Your task to perform on an android device: toggle improve location accuracy Image 0: 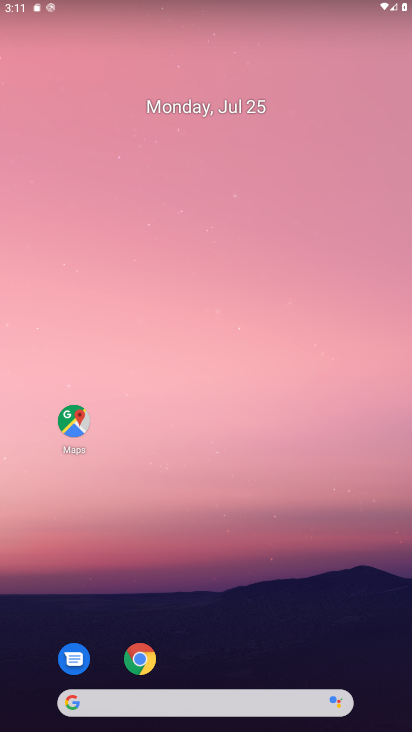
Step 0: drag from (223, 52) to (259, 148)
Your task to perform on an android device: toggle improve location accuracy Image 1: 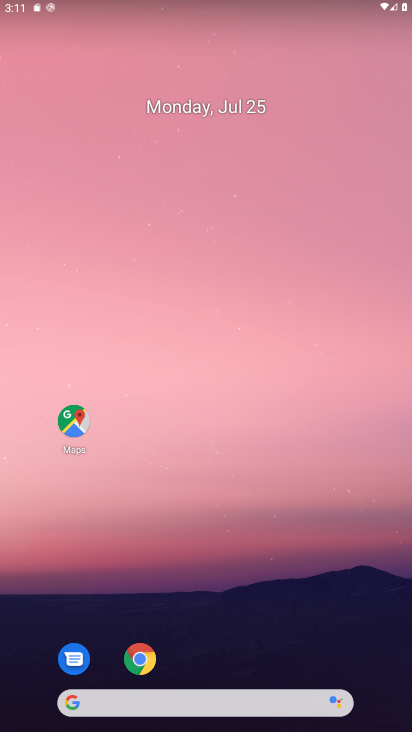
Step 1: drag from (180, 654) to (250, 24)
Your task to perform on an android device: toggle improve location accuracy Image 2: 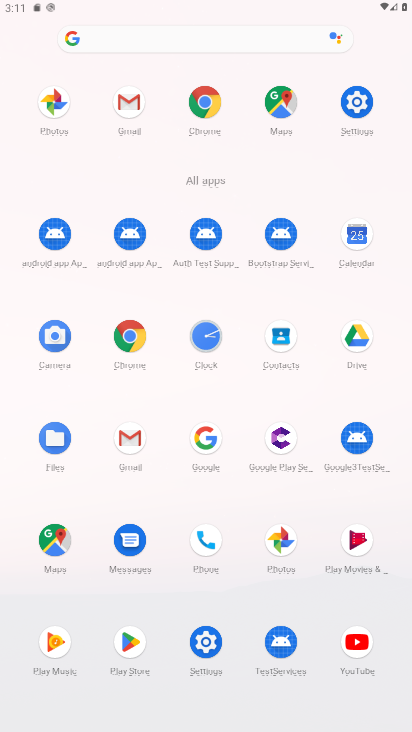
Step 2: click (357, 107)
Your task to perform on an android device: toggle improve location accuracy Image 3: 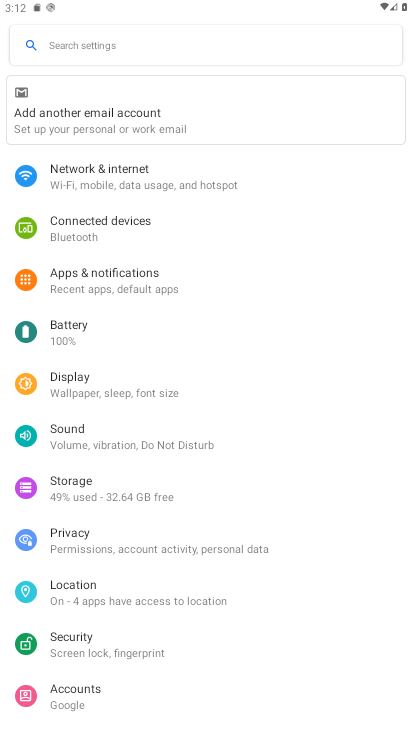
Step 3: click (73, 185)
Your task to perform on an android device: toggle improve location accuracy Image 4: 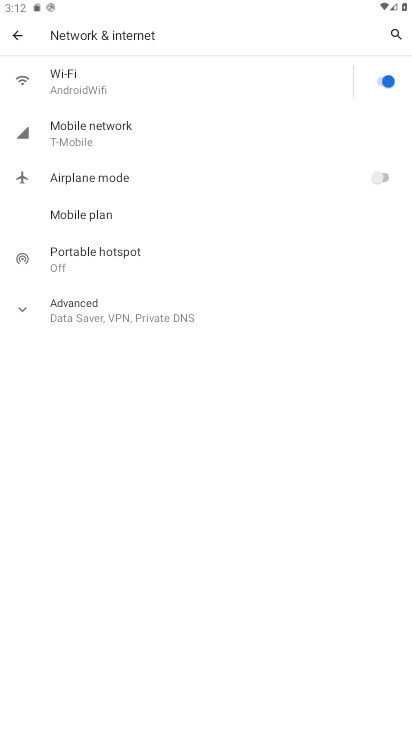
Step 4: press back button
Your task to perform on an android device: toggle improve location accuracy Image 5: 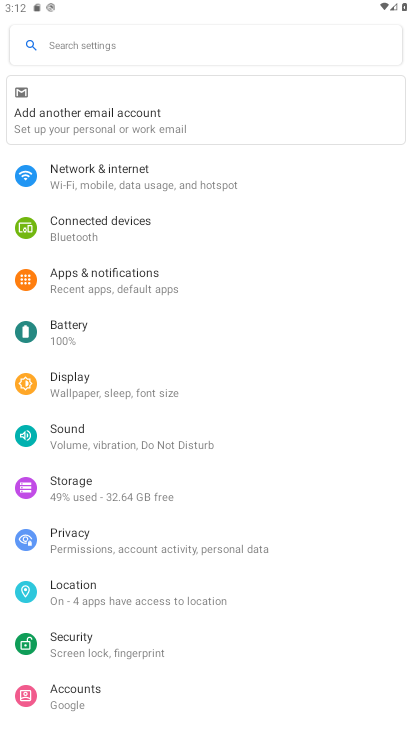
Step 5: click (99, 597)
Your task to perform on an android device: toggle improve location accuracy Image 6: 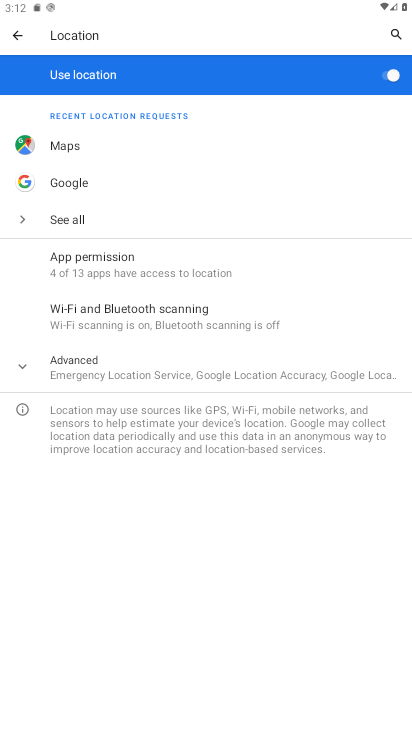
Step 6: click (69, 367)
Your task to perform on an android device: toggle improve location accuracy Image 7: 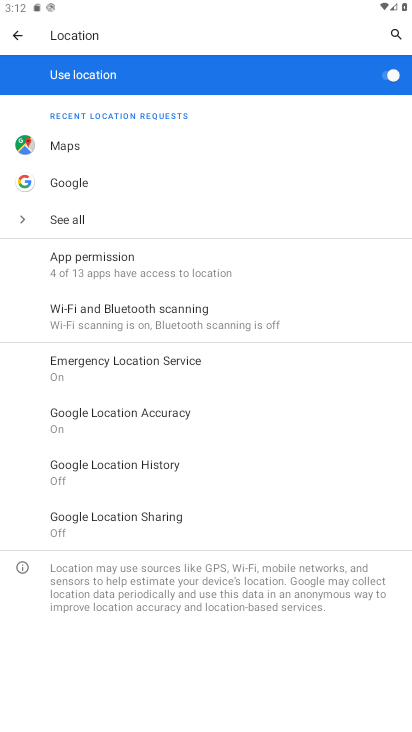
Step 7: click (102, 410)
Your task to perform on an android device: toggle improve location accuracy Image 8: 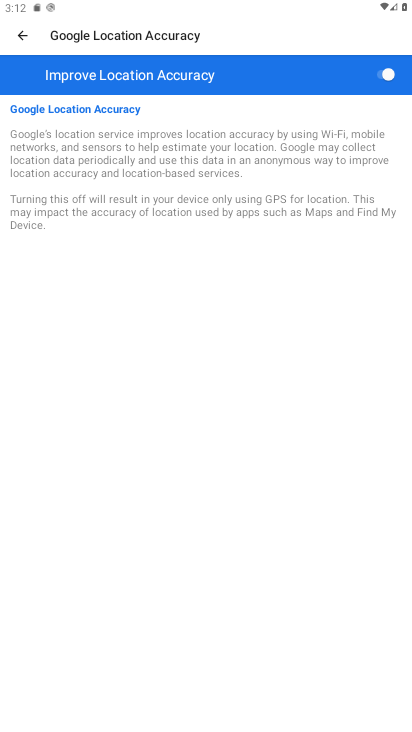
Step 8: click (380, 68)
Your task to perform on an android device: toggle improve location accuracy Image 9: 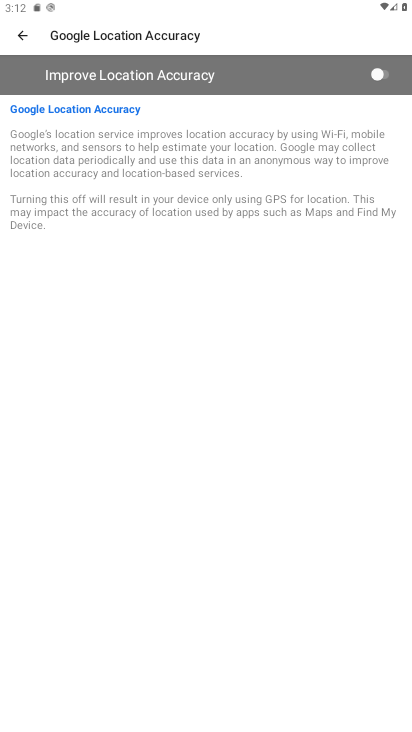
Step 9: task complete